Your task to perform on an android device: turn on airplane mode Image 0: 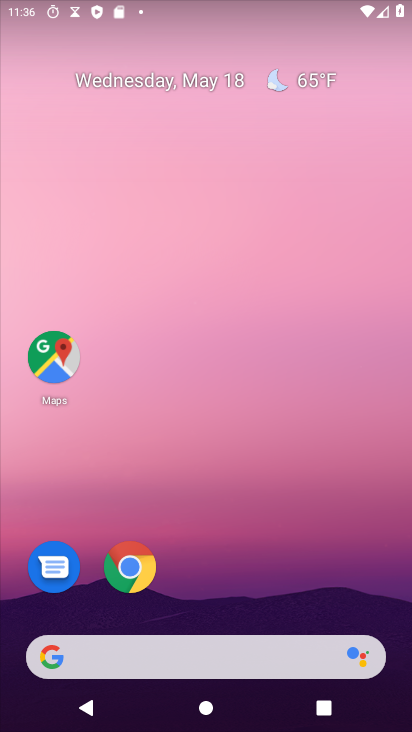
Step 0: drag from (324, 598) to (264, 95)
Your task to perform on an android device: turn on airplane mode Image 1: 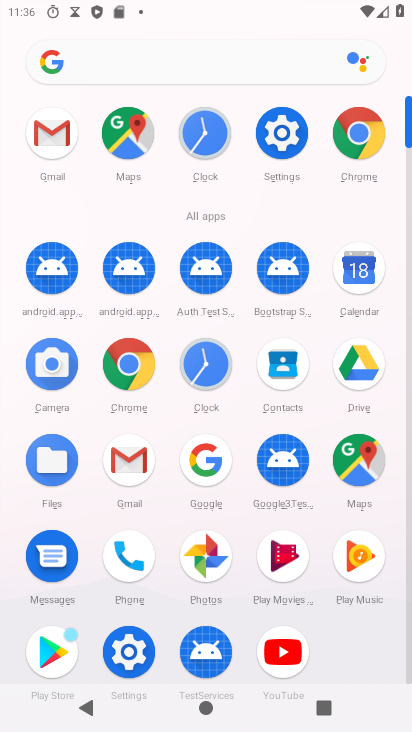
Step 1: click (279, 136)
Your task to perform on an android device: turn on airplane mode Image 2: 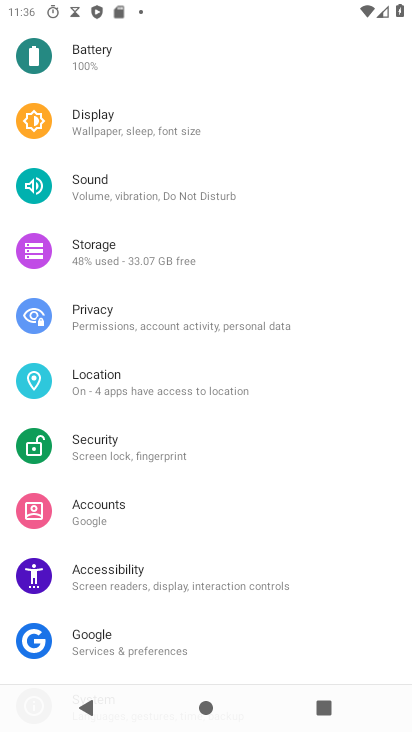
Step 2: drag from (276, 131) to (271, 476)
Your task to perform on an android device: turn on airplane mode Image 3: 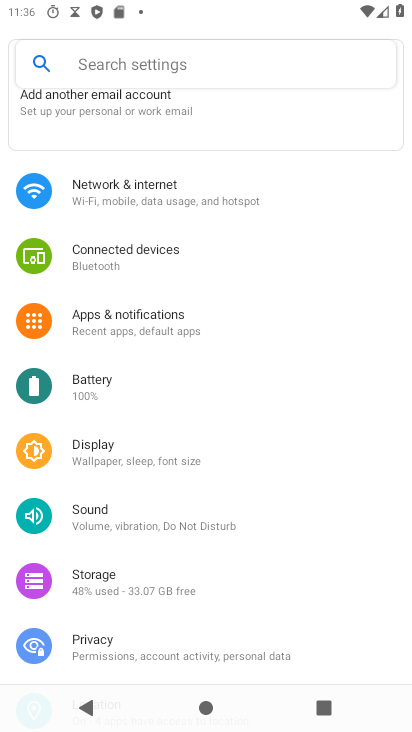
Step 3: click (219, 189)
Your task to perform on an android device: turn on airplane mode Image 4: 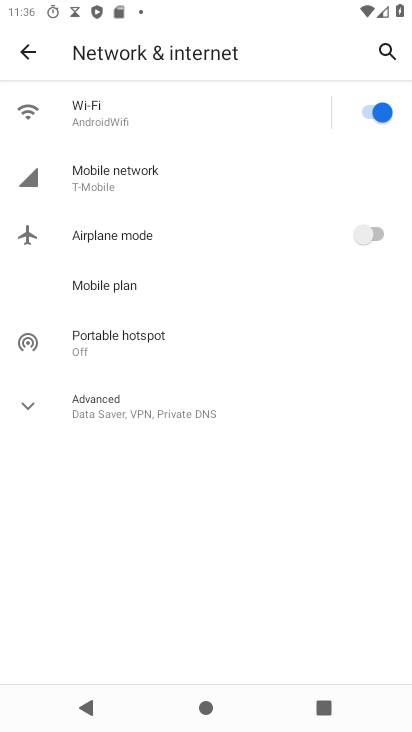
Step 4: click (380, 233)
Your task to perform on an android device: turn on airplane mode Image 5: 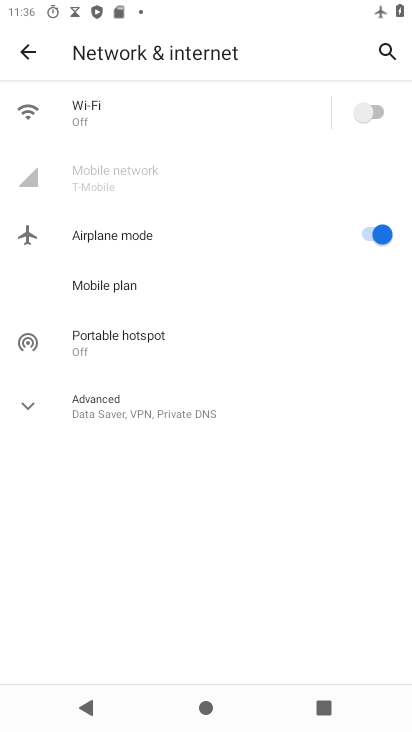
Step 5: task complete